Your task to perform on an android device: Open accessibility settings Image 0: 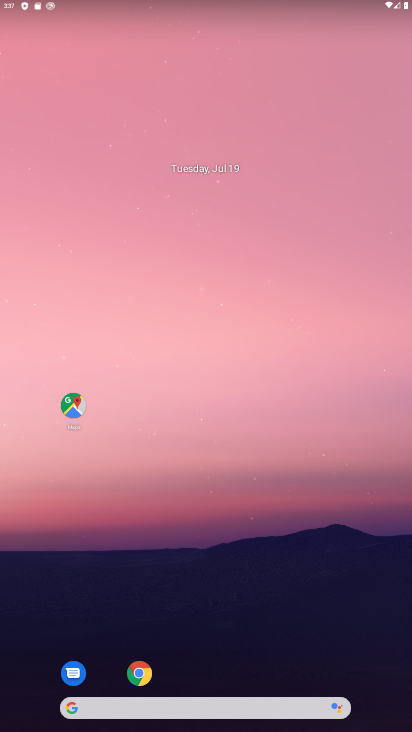
Step 0: drag from (269, 499) to (239, 186)
Your task to perform on an android device: Open accessibility settings Image 1: 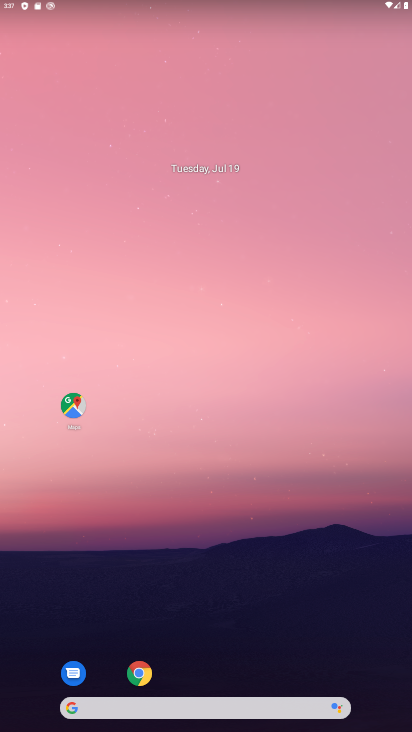
Step 1: drag from (316, 617) to (287, 138)
Your task to perform on an android device: Open accessibility settings Image 2: 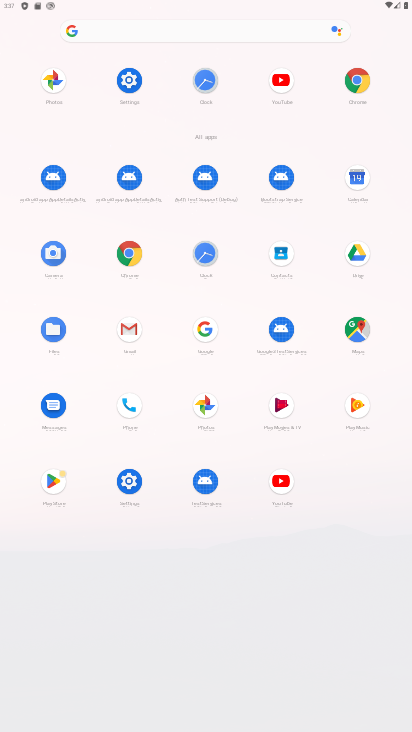
Step 2: click (122, 80)
Your task to perform on an android device: Open accessibility settings Image 3: 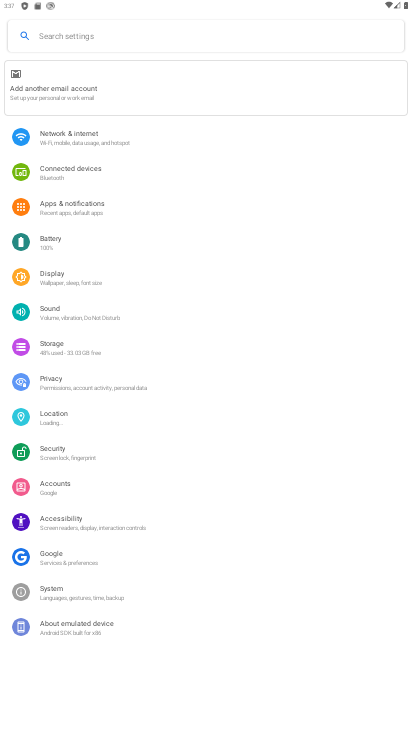
Step 3: click (71, 517)
Your task to perform on an android device: Open accessibility settings Image 4: 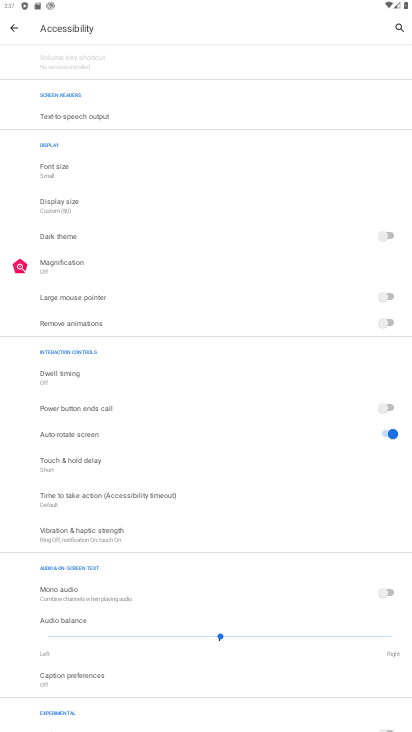
Step 4: task complete